Your task to perform on an android device: open the mobile data screen to see how much data has been used Image 0: 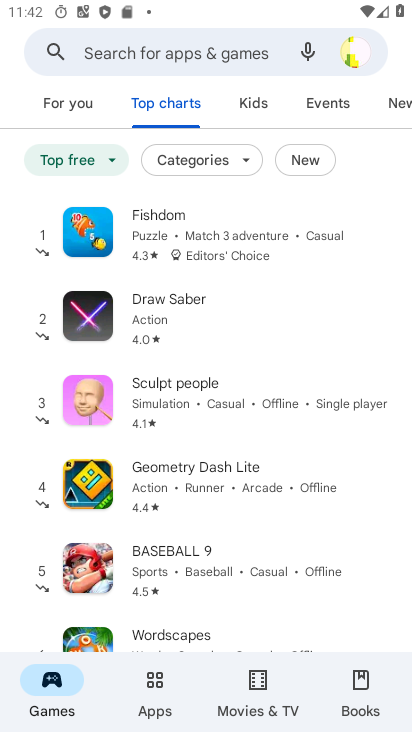
Step 0: press home button
Your task to perform on an android device: open the mobile data screen to see how much data has been used Image 1: 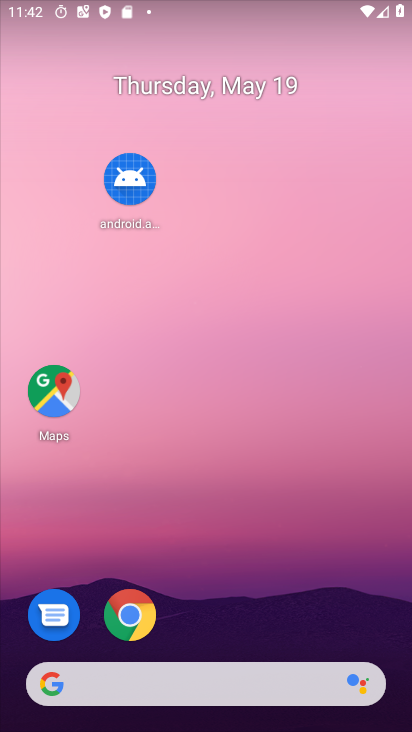
Step 1: drag from (353, 6) to (312, 473)
Your task to perform on an android device: open the mobile data screen to see how much data has been used Image 2: 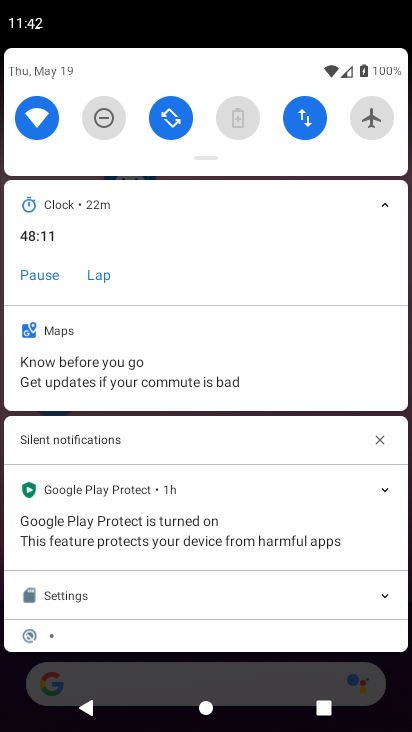
Step 2: click (308, 113)
Your task to perform on an android device: open the mobile data screen to see how much data has been used Image 3: 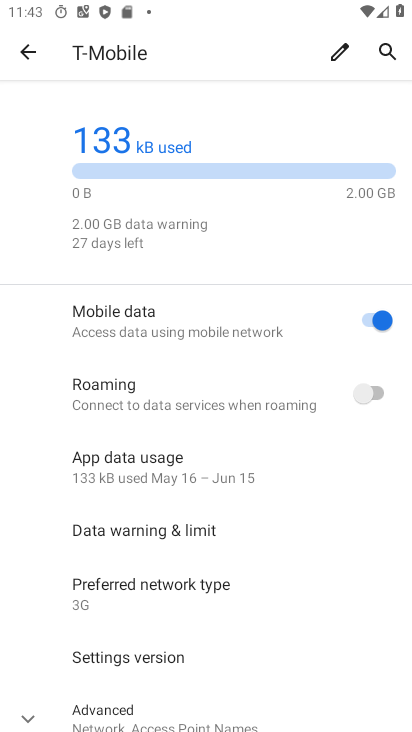
Step 3: task complete